Your task to perform on an android device: read, delete, or share a saved page in the chrome app Image 0: 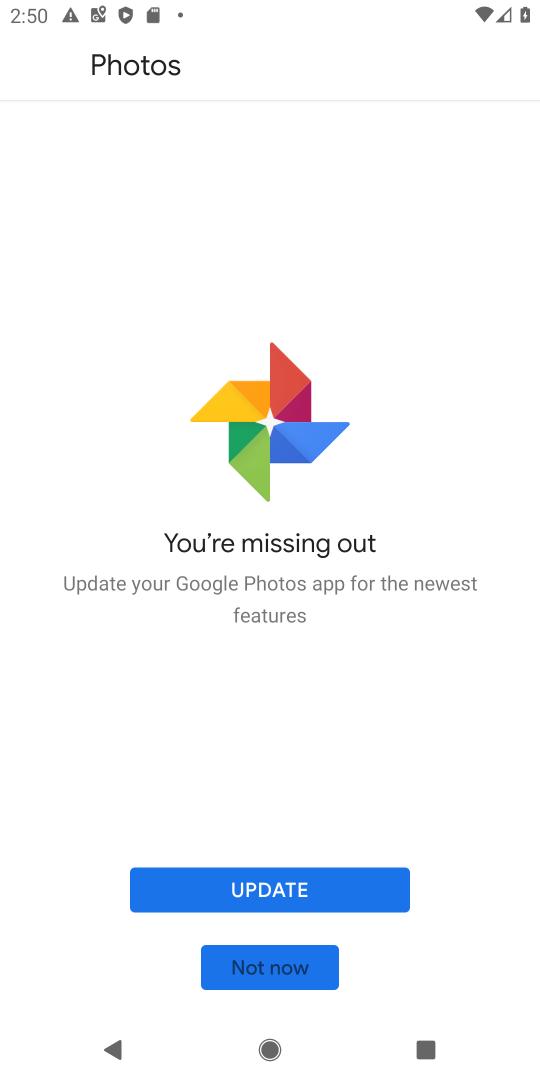
Step 0: press back button
Your task to perform on an android device: read, delete, or share a saved page in the chrome app Image 1: 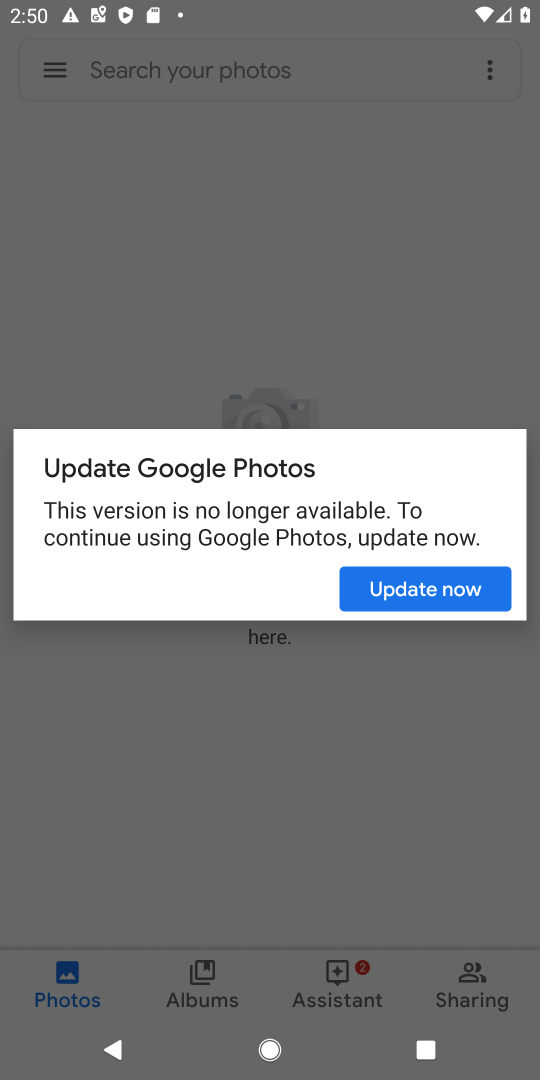
Step 1: press home button
Your task to perform on an android device: read, delete, or share a saved page in the chrome app Image 2: 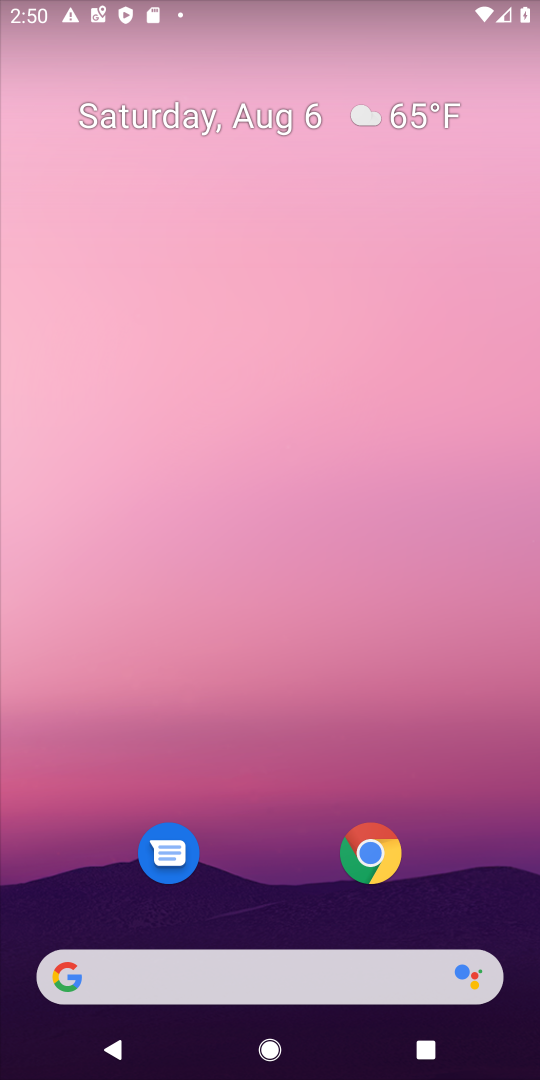
Step 2: click (379, 869)
Your task to perform on an android device: read, delete, or share a saved page in the chrome app Image 3: 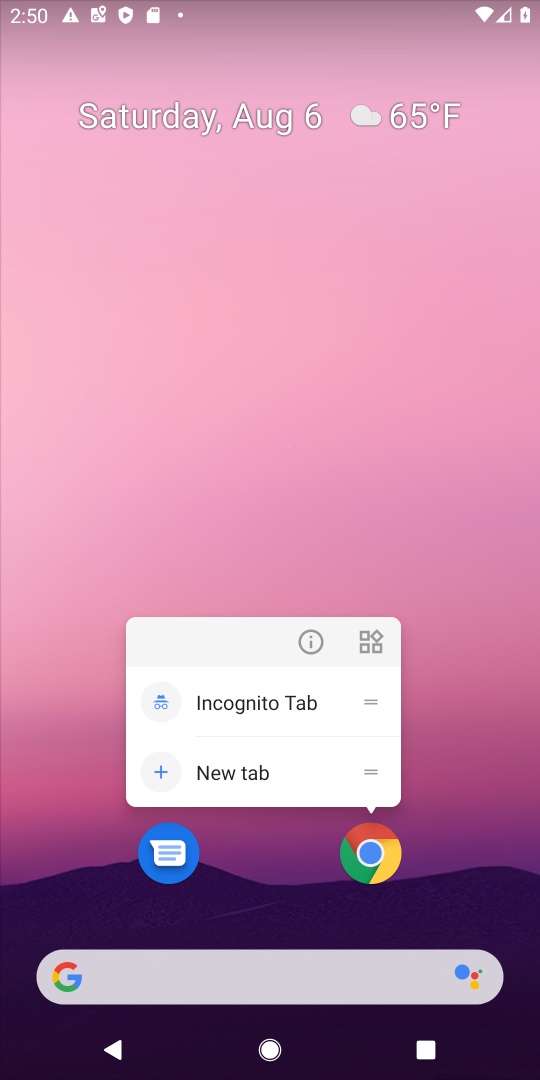
Step 3: click (364, 854)
Your task to perform on an android device: read, delete, or share a saved page in the chrome app Image 4: 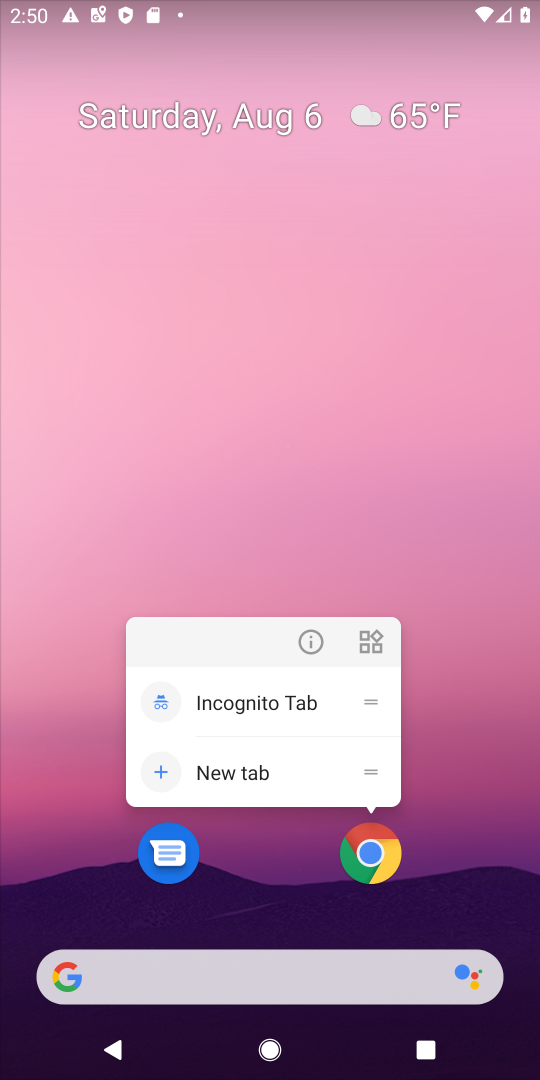
Step 4: click (362, 852)
Your task to perform on an android device: read, delete, or share a saved page in the chrome app Image 5: 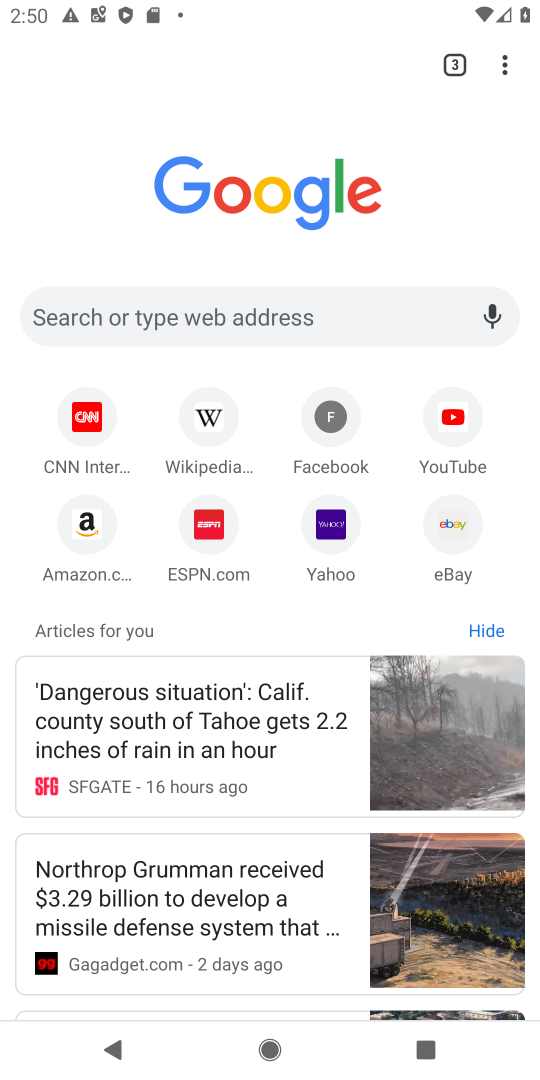
Step 5: drag from (495, 57) to (259, 418)
Your task to perform on an android device: read, delete, or share a saved page in the chrome app Image 6: 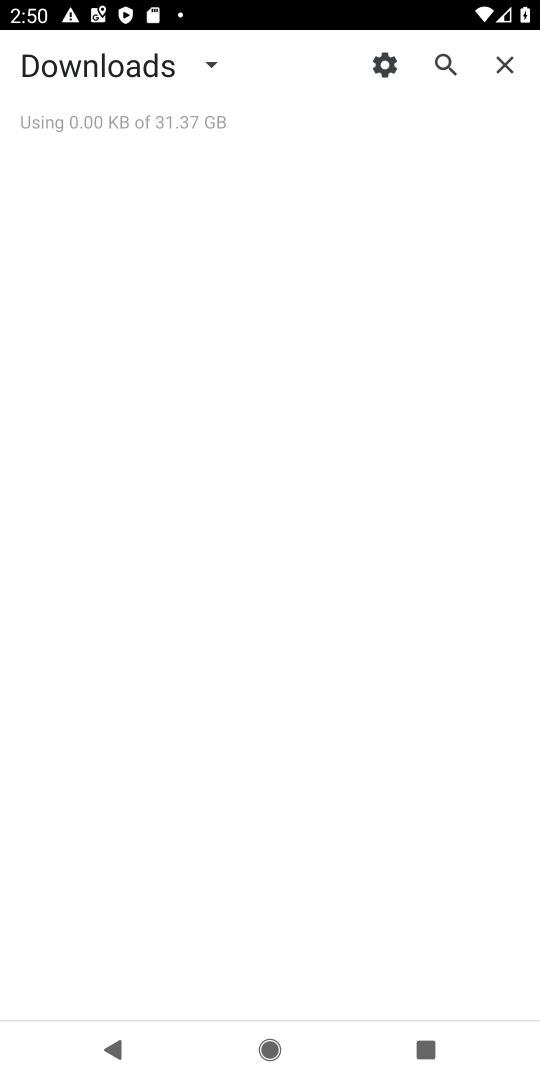
Step 6: click (212, 64)
Your task to perform on an android device: read, delete, or share a saved page in the chrome app Image 7: 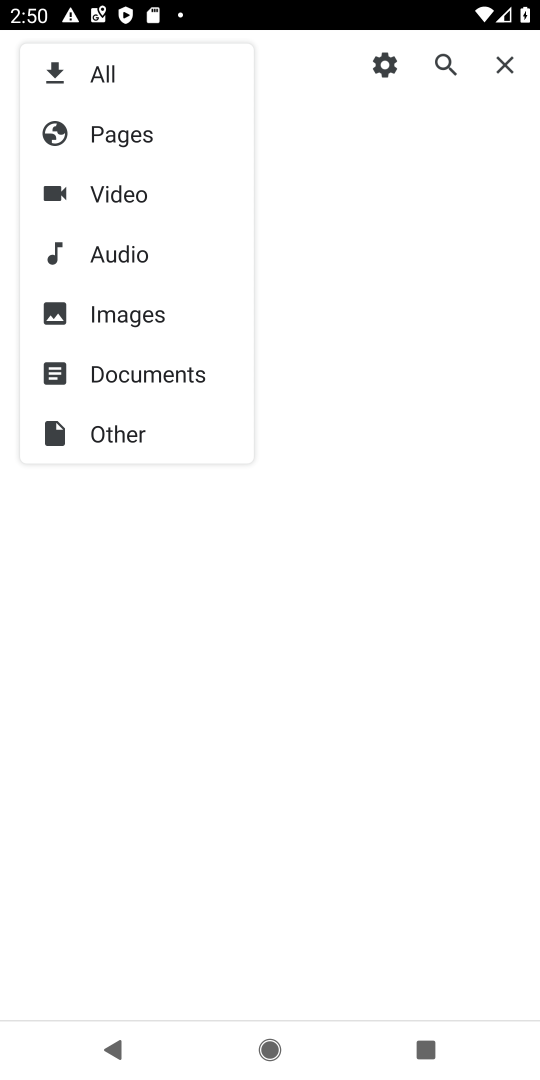
Step 7: click (163, 141)
Your task to perform on an android device: read, delete, or share a saved page in the chrome app Image 8: 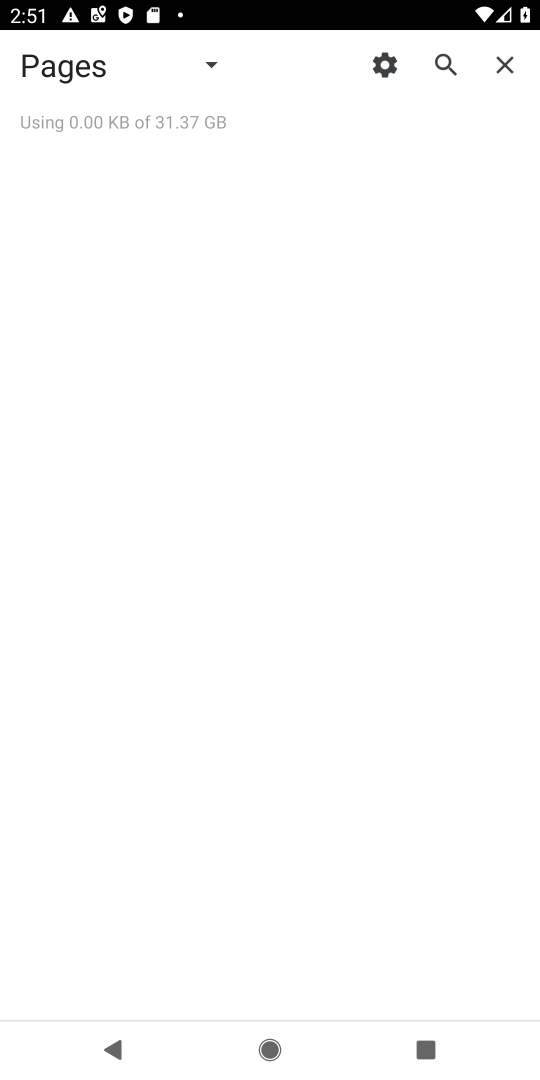
Step 8: task complete